Your task to perform on an android device: turn on sleep mode Image 0: 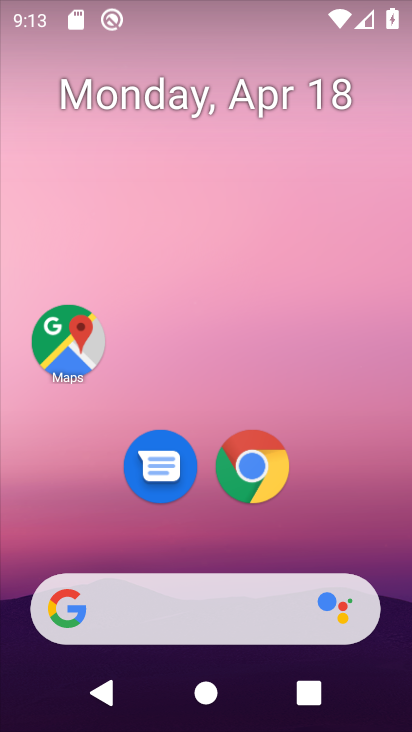
Step 0: click (397, 389)
Your task to perform on an android device: turn on sleep mode Image 1: 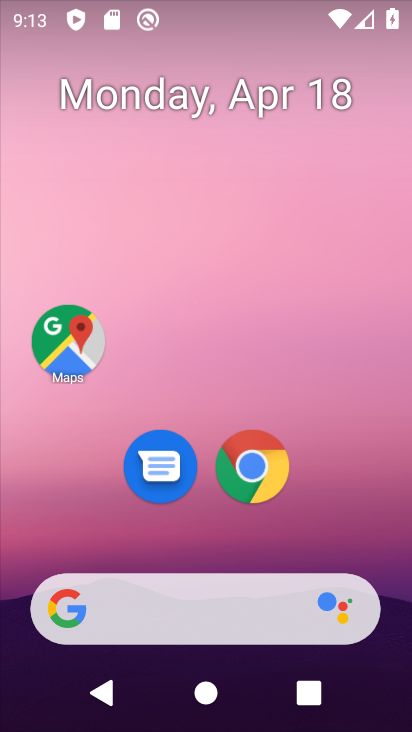
Step 1: drag from (188, 490) to (3, 82)
Your task to perform on an android device: turn on sleep mode Image 2: 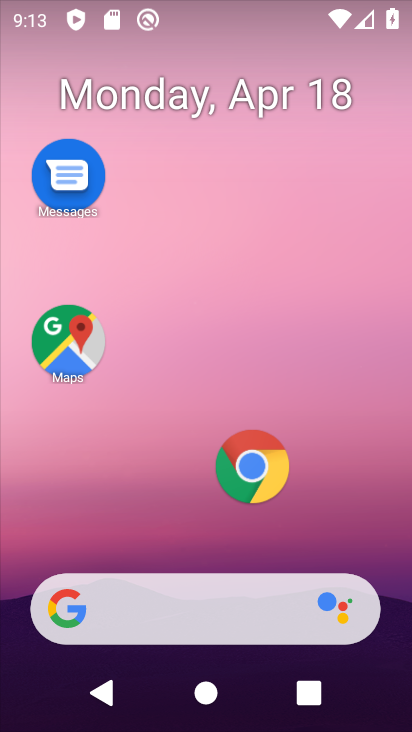
Step 2: drag from (178, 515) to (182, 157)
Your task to perform on an android device: turn on sleep mode Image 3: 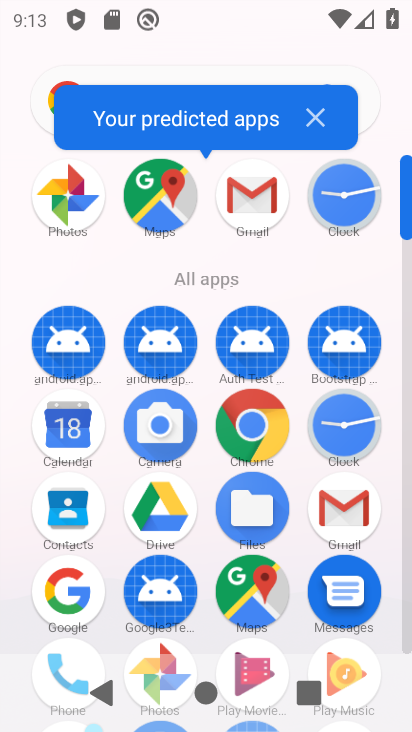
Step 3: drag from (210, 572) to (230, 324)
Your task to perform on an android device: turn on sleep mode Image 4: 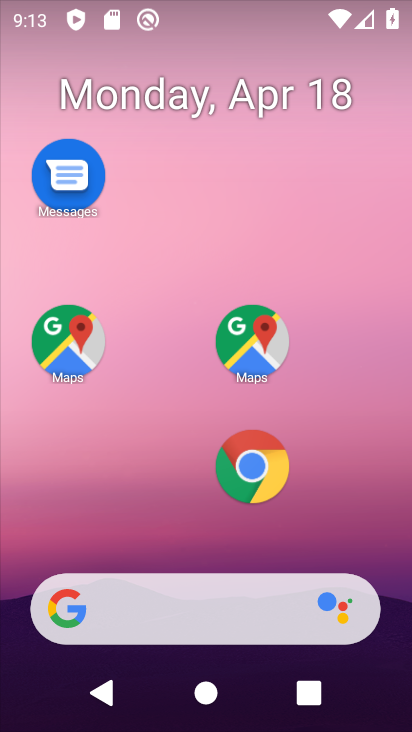
Step 4: drag from (159, 549) to (196, 50)
Your task to perform on an android device: turn on sleep mode Image 5: 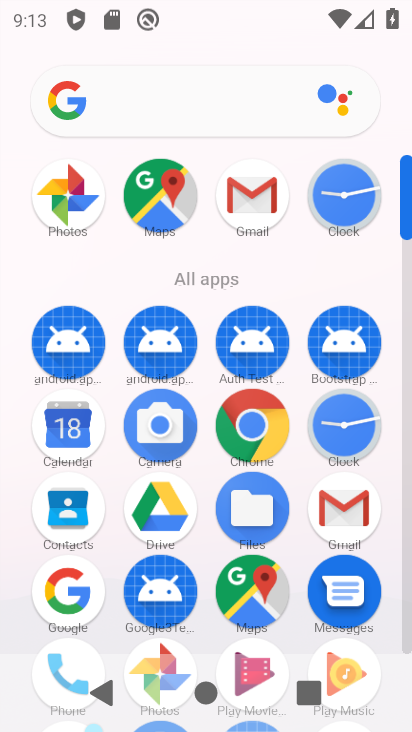
Step 5: drag from (204, 552) to (204, 174)
Your task to perform on an android device: turn on sleep mode Image 6: 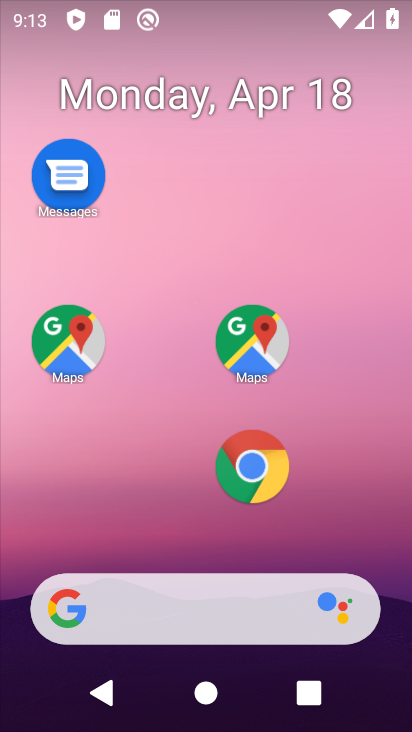
Step 6: drag from (209, 531) to (201, 298)
Your task to perform on an android device: turn on sleep mode Image 7: 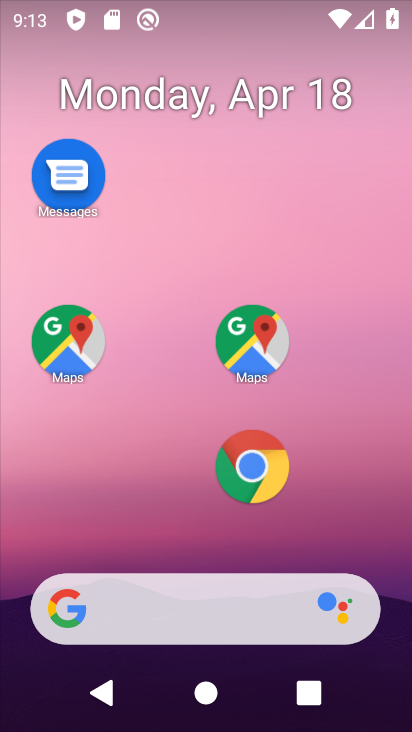
Step 7: drag from (183, 482) to (181, 36)
Your task to perform on an android device: turn on sleep mode Image 8: 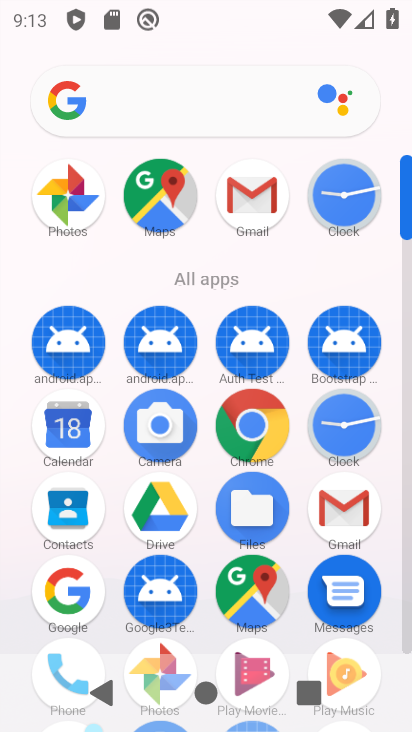
Step 8: drag from (212, 623) to (203, 258)
Your task to perform on an android device: turn on sleep mode Image 9: 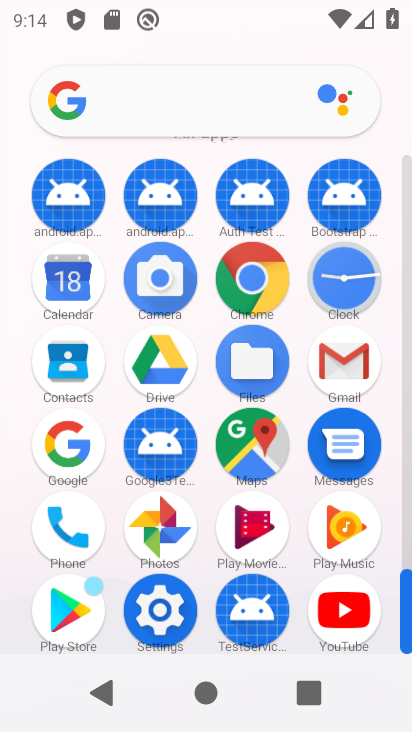
Step 9: click (150, 593)
Your task to perform on an android device: turn on sleep mode Image 10: 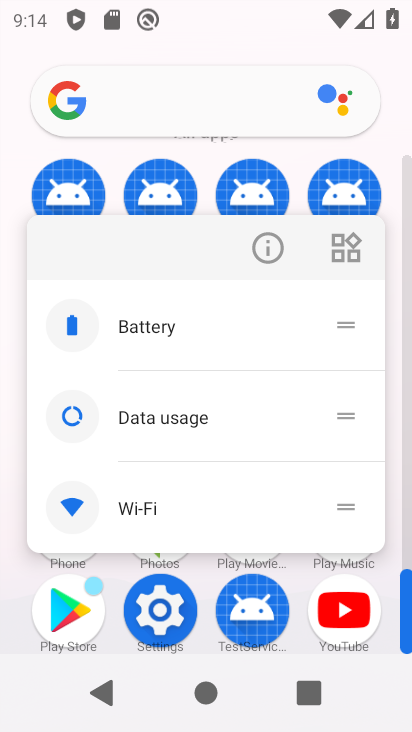
Step 10: click (148, 596)
Your task to perform on an android device: turn on sleep mode Image 11: 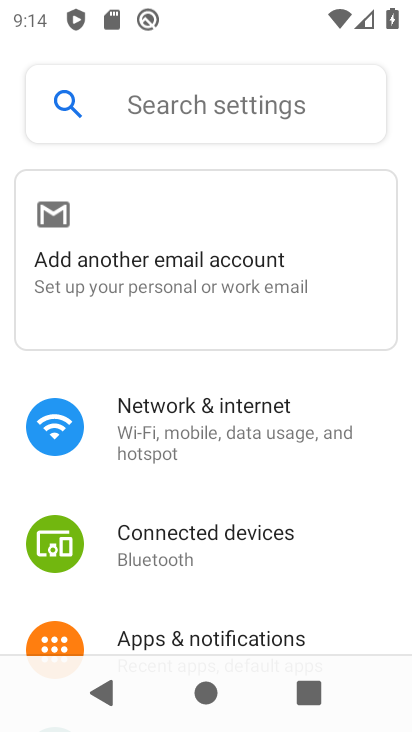
Step 11: click (200, 103)
Your task to perform on an android device: turn on sleep mode Image 12: 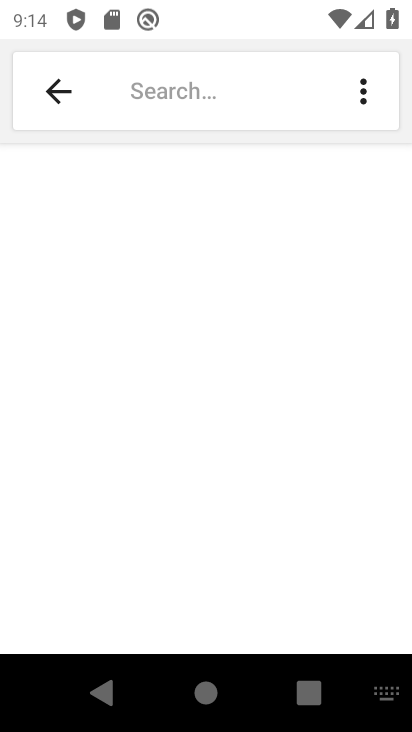
Step 12: type "sleep mode"
Your task to perform on an android device: turn on sleep mode Image 13: 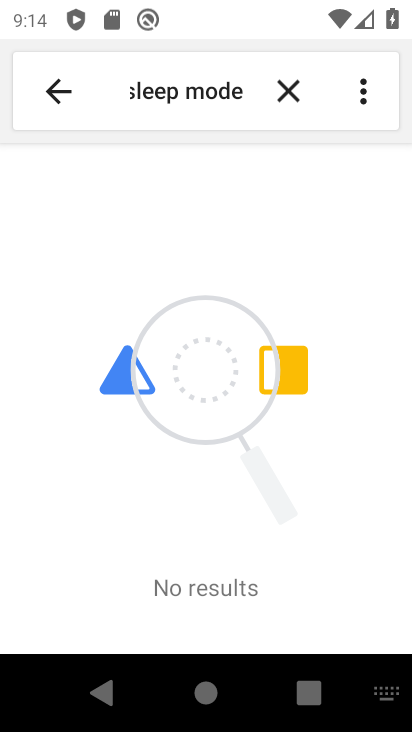
Step 13: task complete